Your task to perform on an android device: turn on translation in the chrome app Image 0: 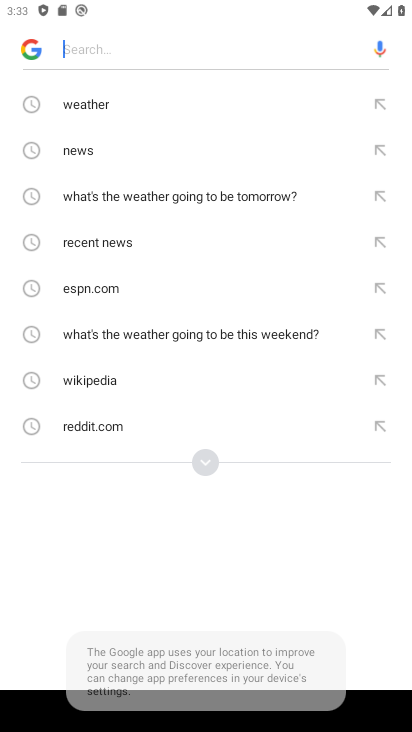
Step 0: press back button
Your task to perform on an android device: turn on translation in the chrome app Image 1: 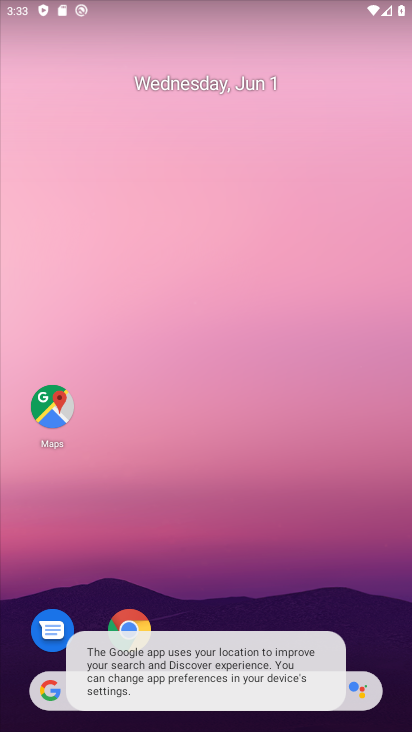
Step 1: drag from (253, 555) to (211, 23)
Your task to perform on an android device: turn on translation in the chrome app Image 2: 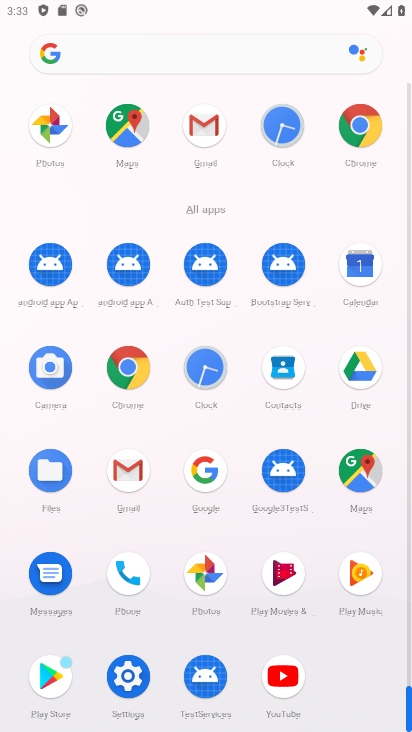
Step 2: click (202, 474)
Your task to perform on an android device: turn on translation in the chrome app Image 3: 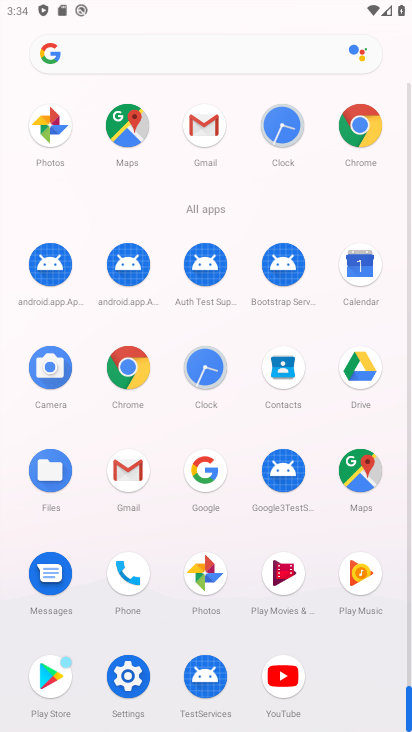
Step 3: click (362, 125)
Your task to perform on an android device: turn on translation in the chrome app Image 4: 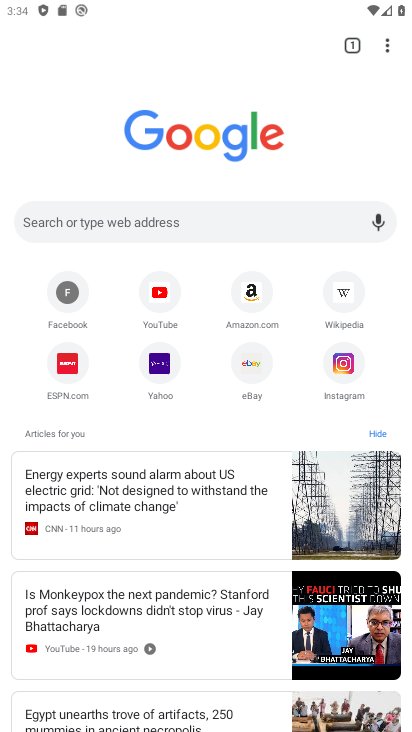
Step 4: drag from (385, 49) to (215, 378)
Your task to perform on an android device: turn on translation in the chrome app Image 5: 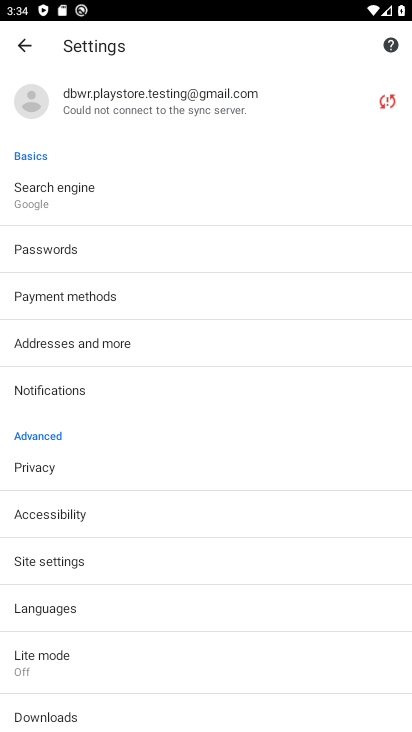
Step 5: click (92, 618)
Your task to perform on an android device: turn on translation in the chrome app Image 6: 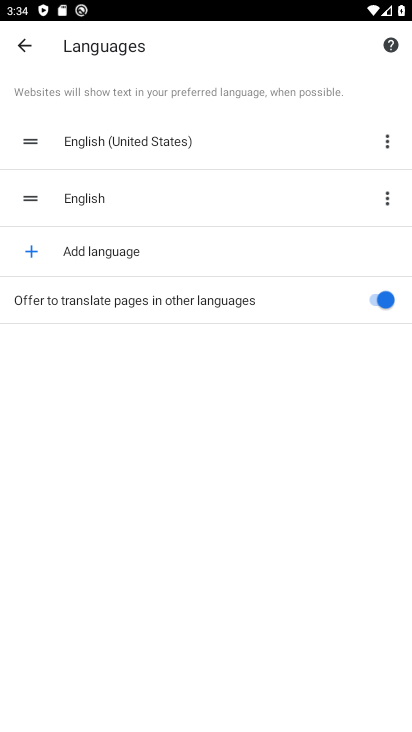
Step 6: task complete